Your task to perform on an android device: Play the new Justin Bieber video on YouTube Image 0: 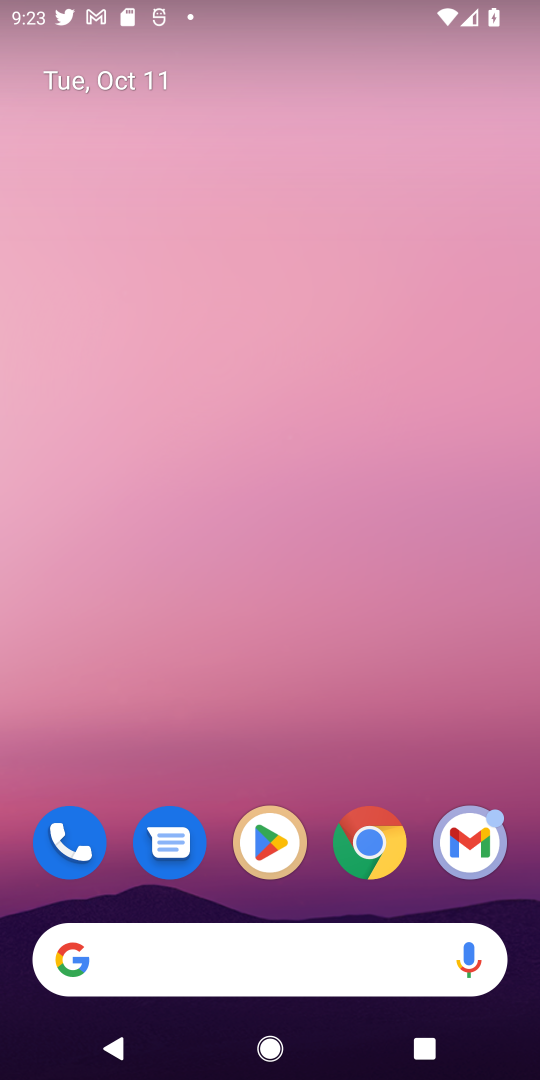
Step 0: click (379, 831)
Your task to perform on an android device: Play the new Justin Bieber video on YouTube Image 1: 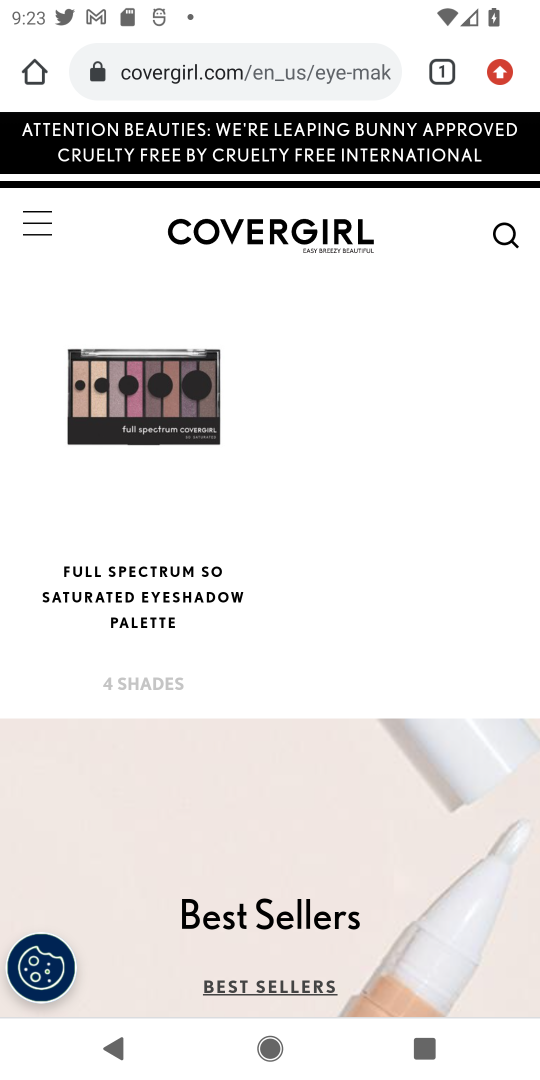
Step 1: click (198, 67)
Your task to perform on an android device: Play the new Justin Bieber video on YouTube Image 2: 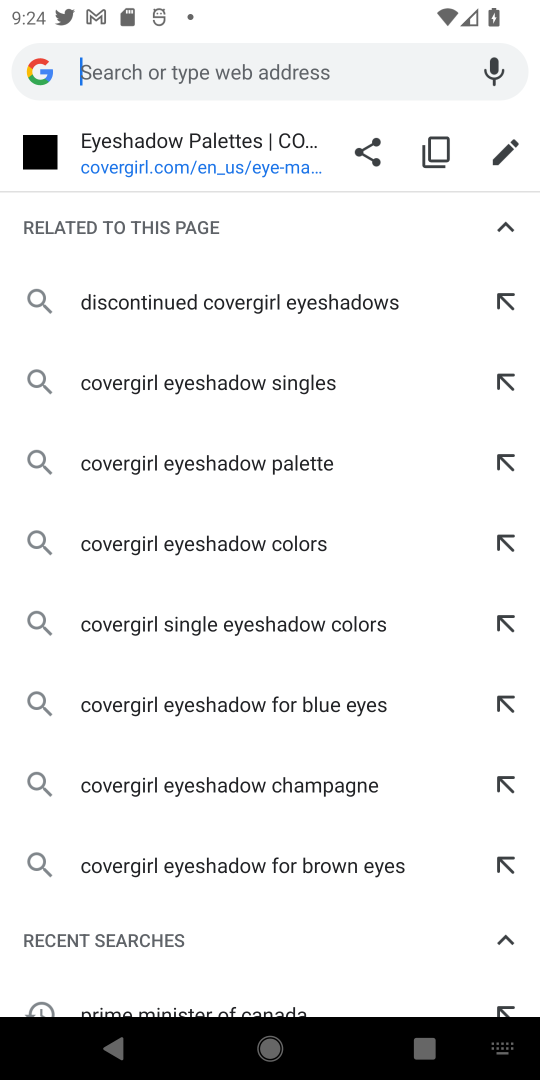
Step 2: press home button
Your task to perform on an android device: Play the new Justin Bieber video on YouTube Image 3: 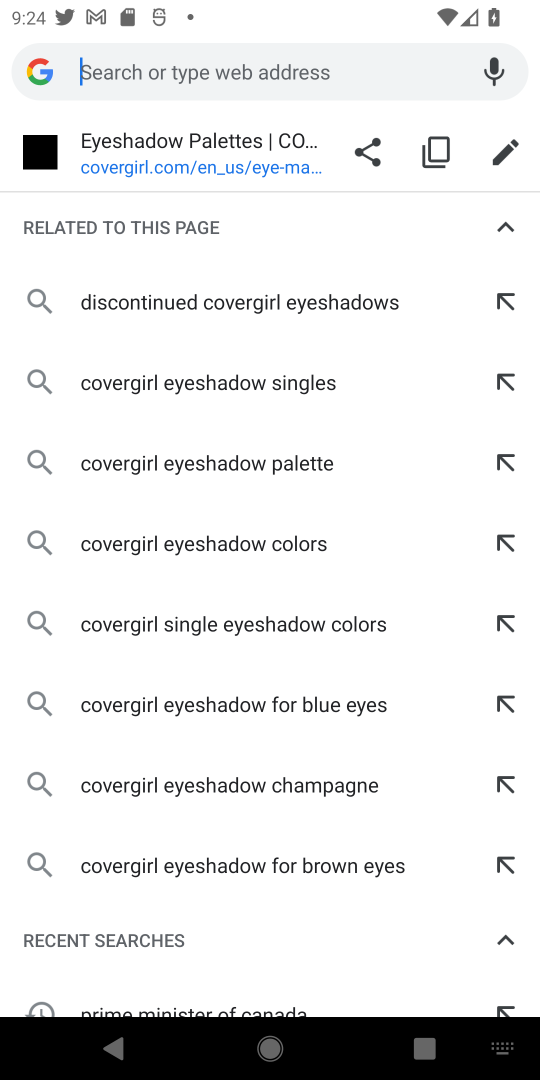
Step 3: type "justin biber vide"
Your task to perform on an android device: Play the new Justin Bieber video on YouTube Image 4: 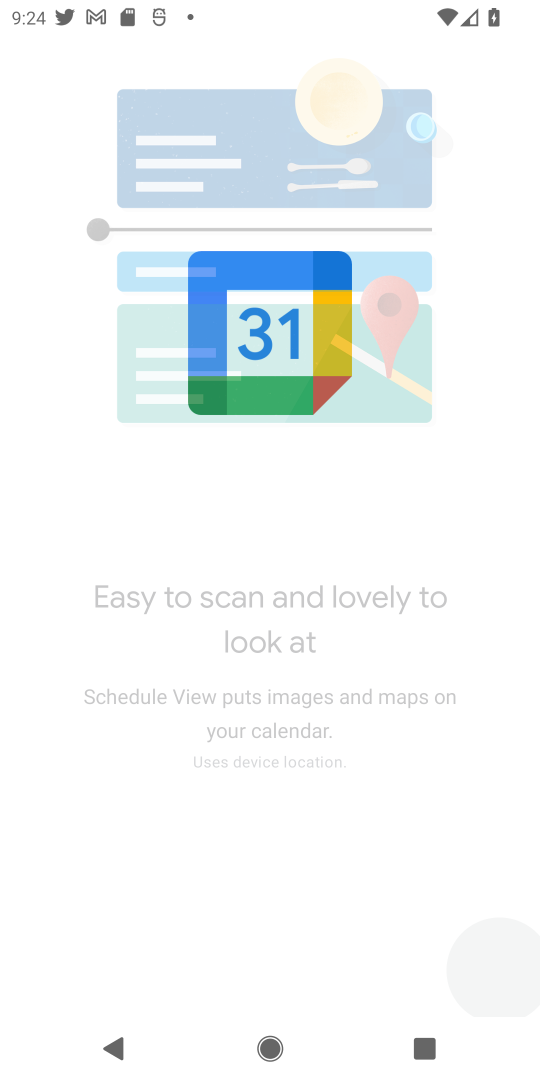
Step 4: press home button
Your task to perform on an android device: Play the new Justin Bieber video on YouTube Image 5: 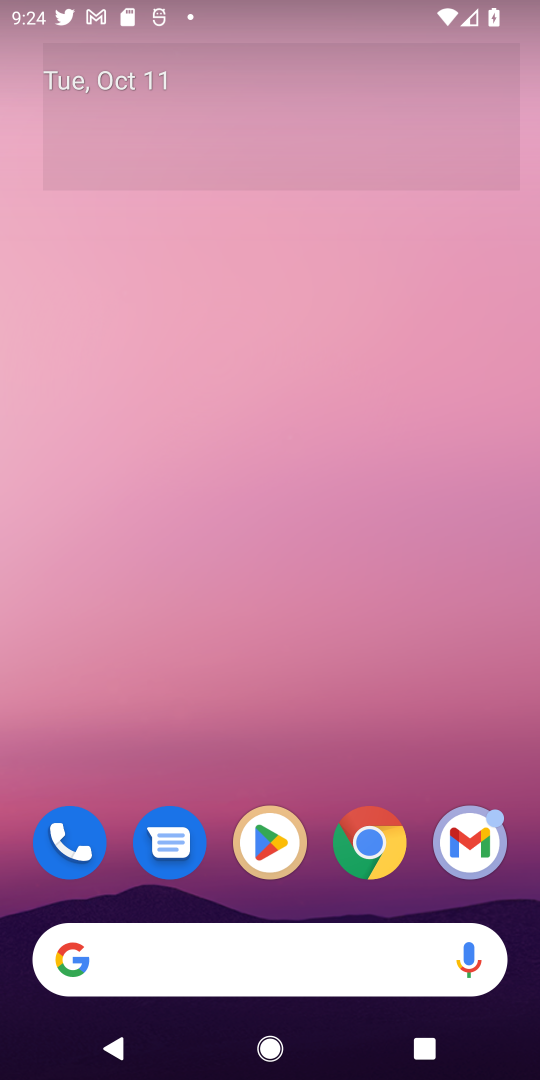
Step 5: drag from (231, 893) to (400, 182)
Your task to perform on an android device: Play the new Justin Bieber video on YouTube Image 6: 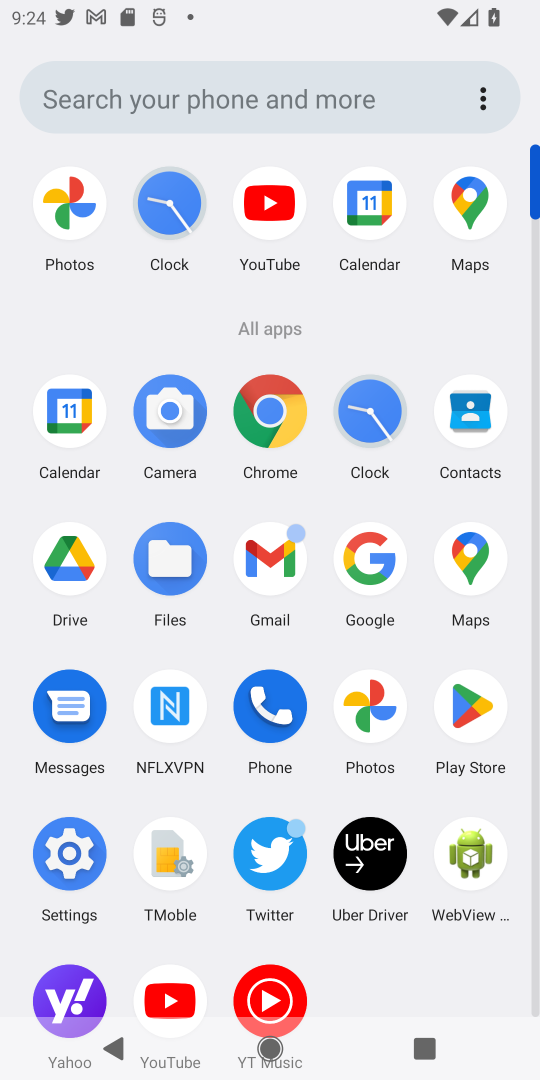
Step 6: click (187, 1005)
Your task to perform on an android device: Play the new Justin Bieber video on YouTube Image 7: 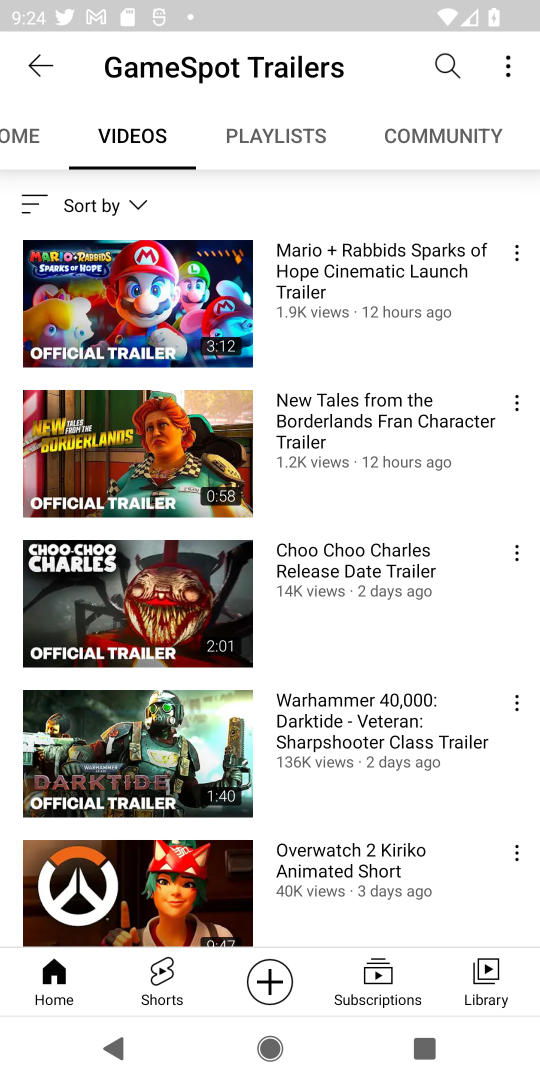
Step 7: click (437, 60)
Your task to perform on an android device: Play the new Justin Bieber video on YouTube Image 8: 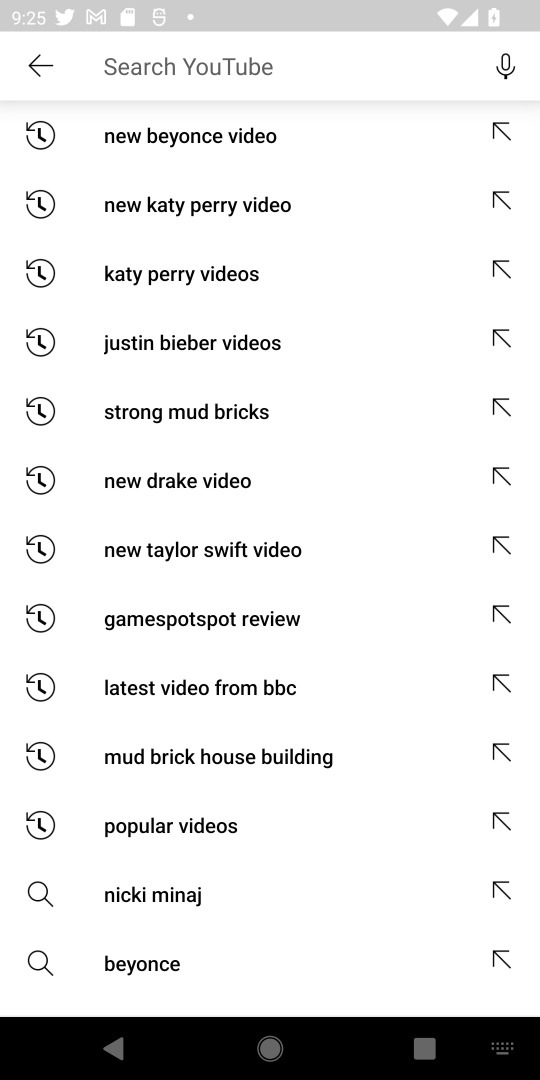
Step 8: click (179, 342)
Your task to perform on an android device: Play the new Justin Bieber video on YouTube Image 9: 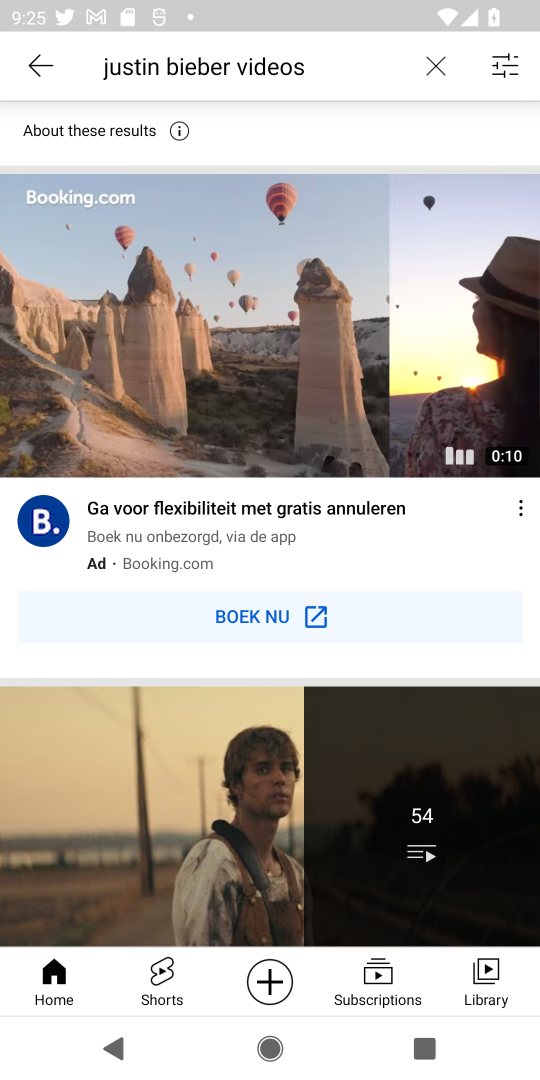
Step 9: drag from (200, 506) to (232, 405)
Your task to perform on an android device: Play the new Justin Bieber video on YouTube Image 10: 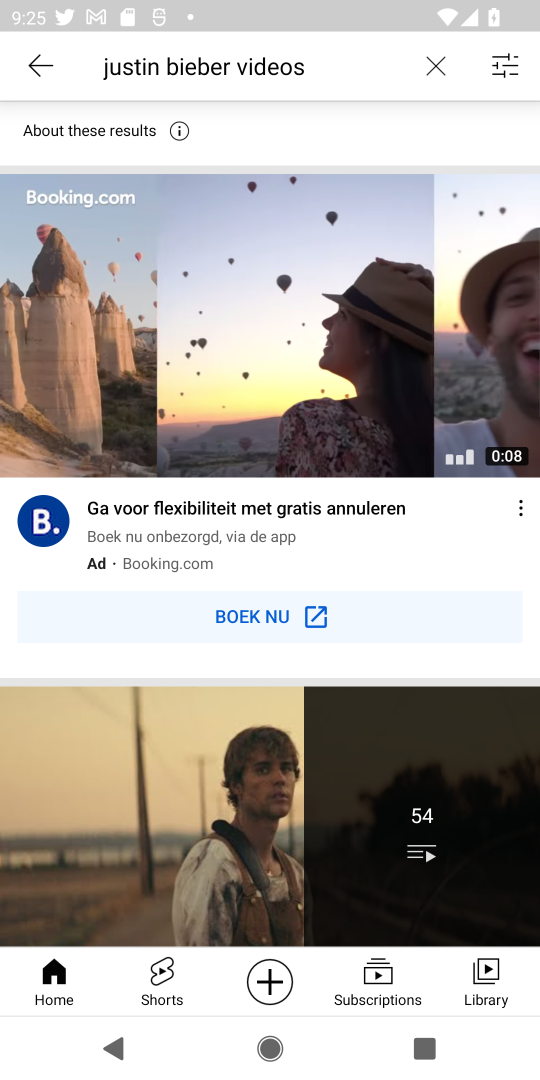
Step 10: drag from (262, 669) to (306, 352)
Your task to perform on an android device: Play the new Justin Bieber video on YouTube Image 11: 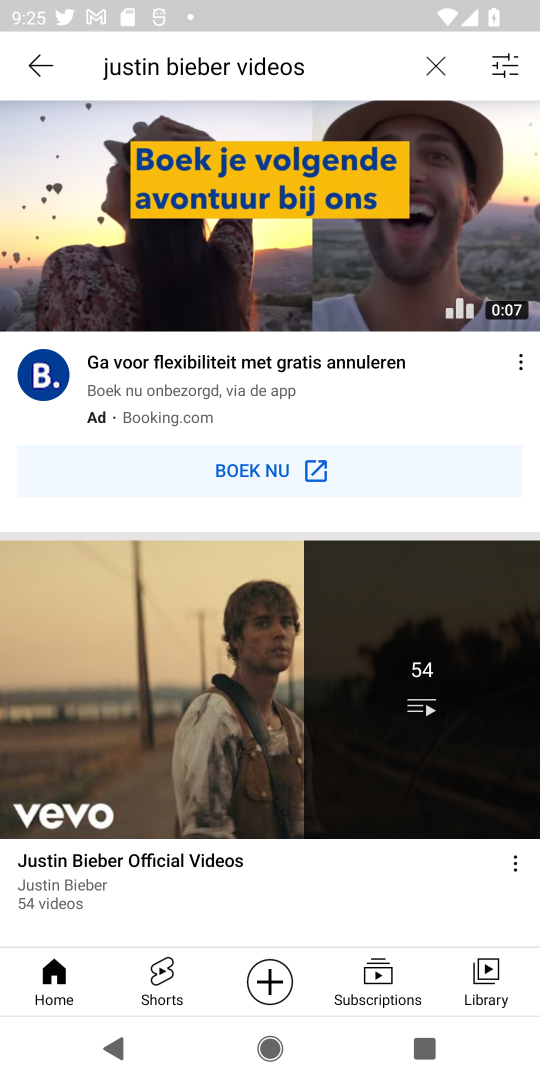
Step 11: drag from (254, 763) to (309, 370)
Your task to perform on an android device: Play the new Justin Bieber video on YouTube Image 12: 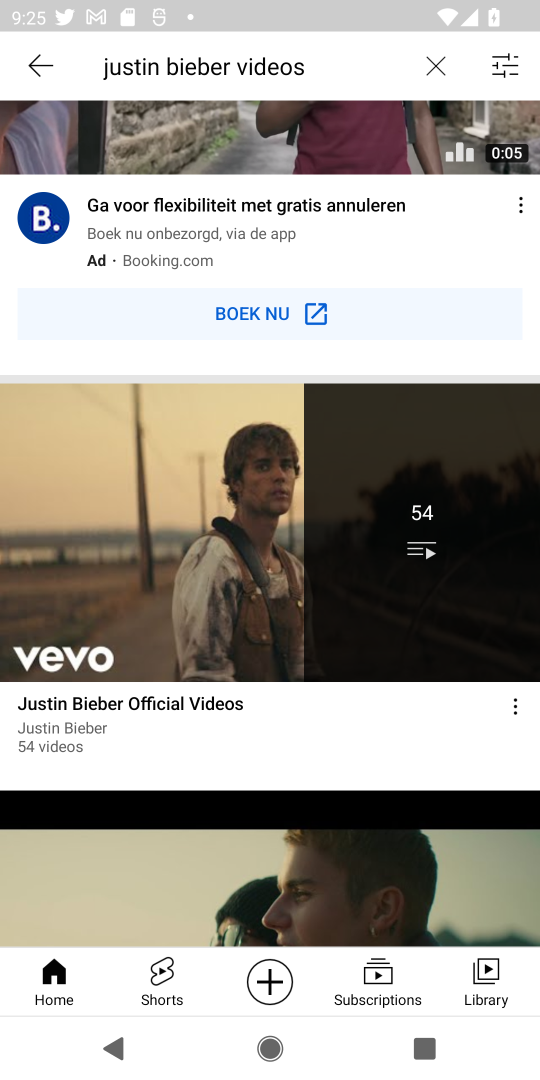
Step 12: drag from (215, 711) to (278, 390)
Your task to perform on an android device: Play the new Justin Bieber video on YouTube Image 13: 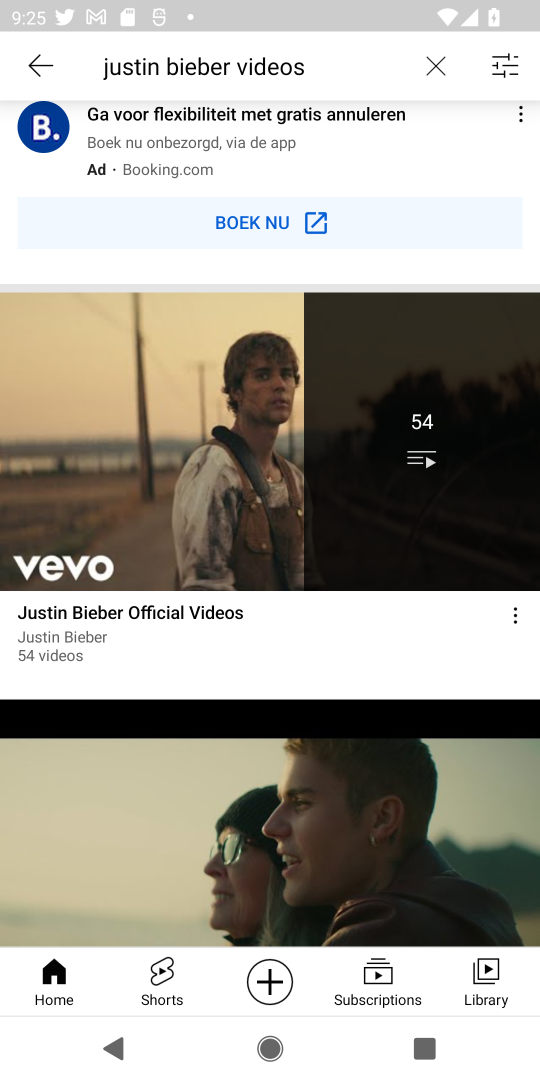
Step 13: drag from (379, 672) to (468, 386)
Your task to perform on an android device: Play the new Justin Bieber video on YouTube Image 14: 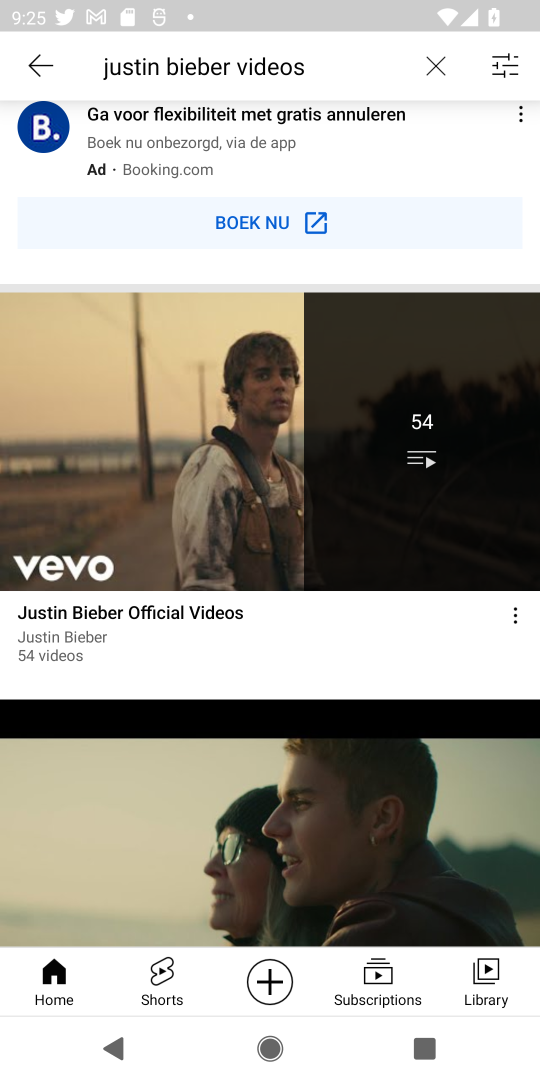
Step 14: click (279, 853)
Your task to perform on an android device: Play the new Justin Bieber video on YouTube Image 15: 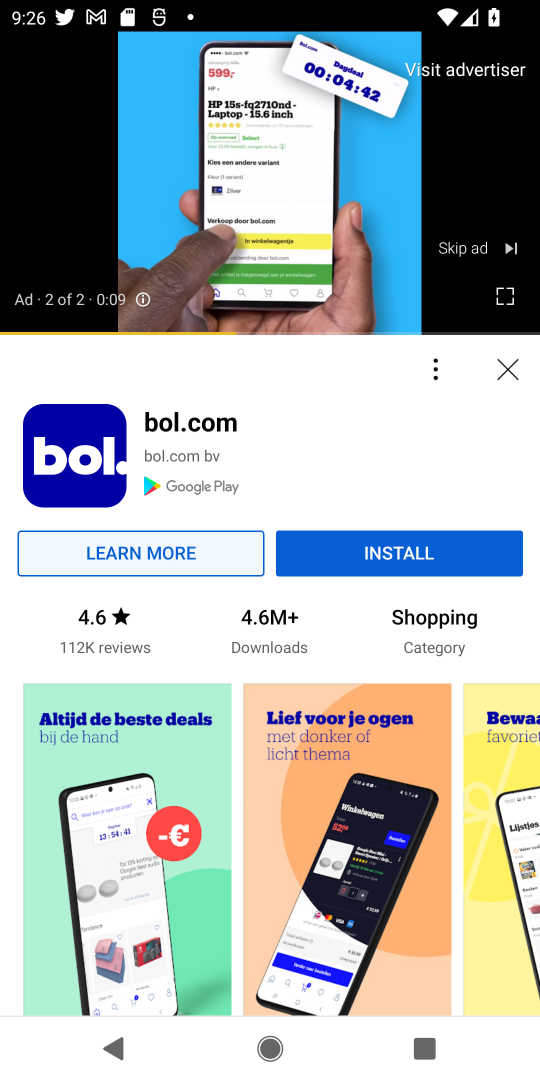
Step 15: click (503, 372)
Your task to perform on an android device: Play the new Justin Bieber video on YouTube Image 16: 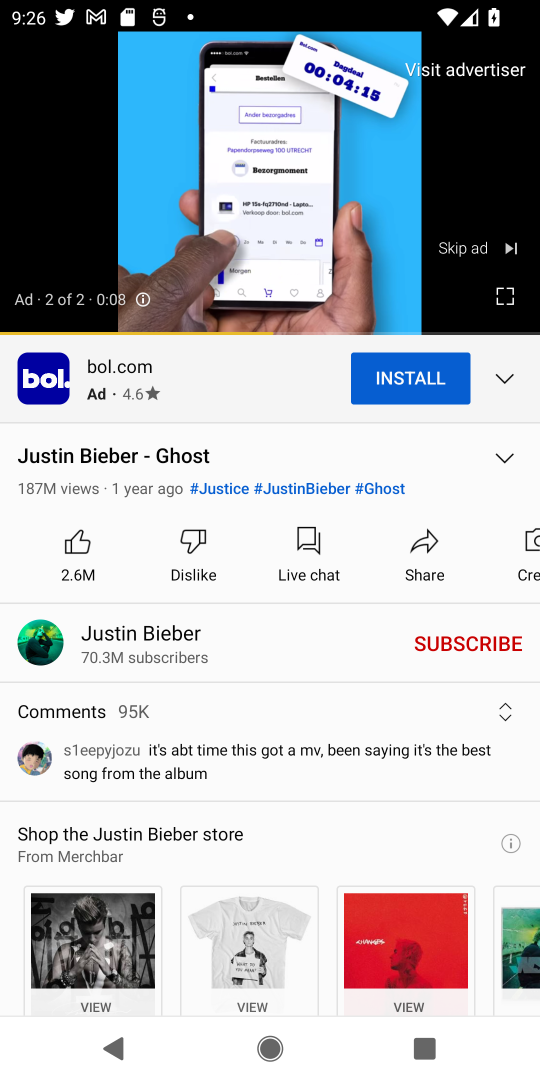
Step 16: click (445, 250)
Your task to perform on an android device: Play the new Justin Bieber video on YouTube Image 17: 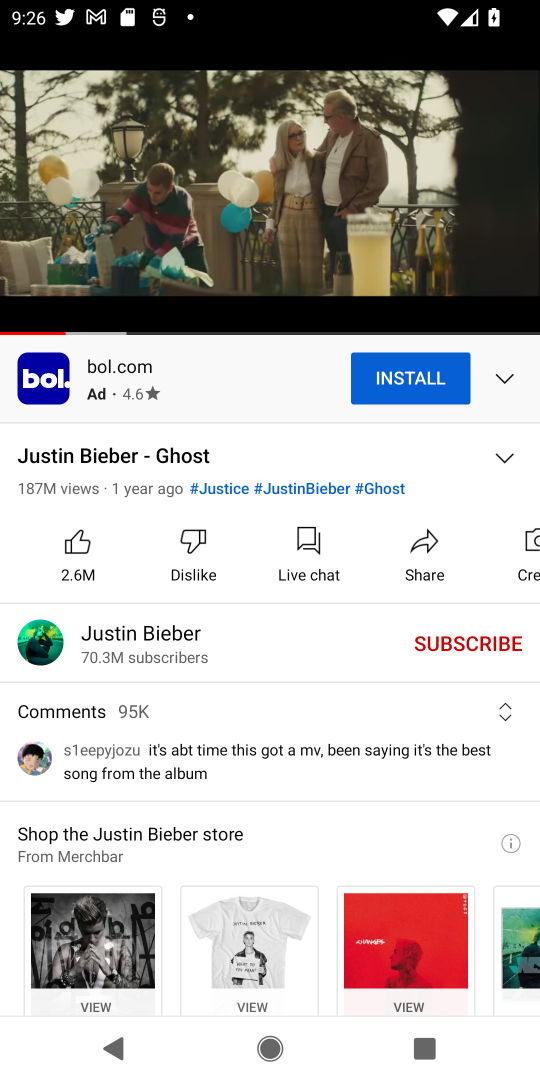
Step 17: task complete